Your task to perform on an android device: Search for the best selling vase on Crate & Barrel Image 0: 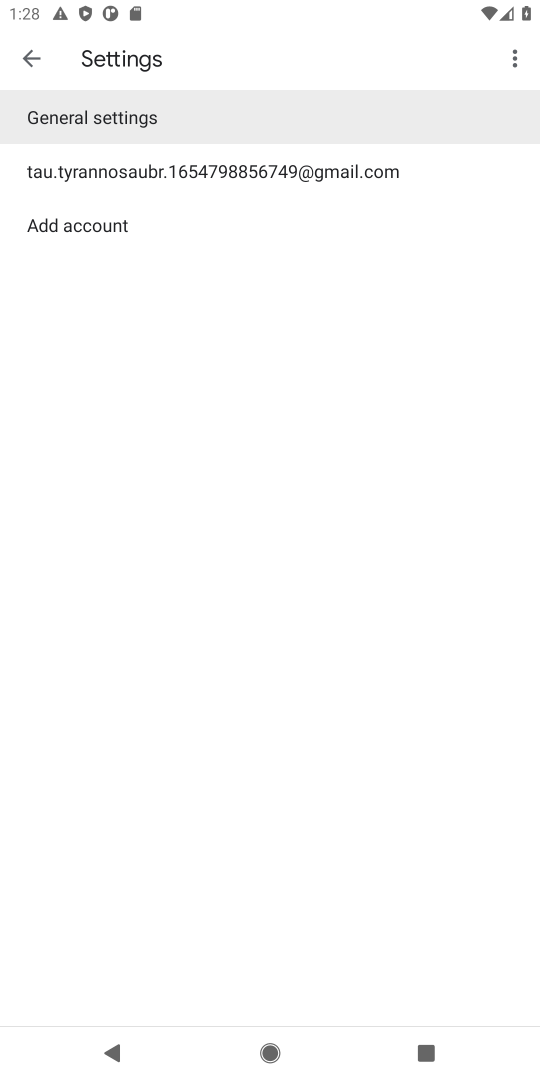
Step 0: press home button
Your task to perform on an android device: Search for the best selling vase on Crate & Barrel Image 1: 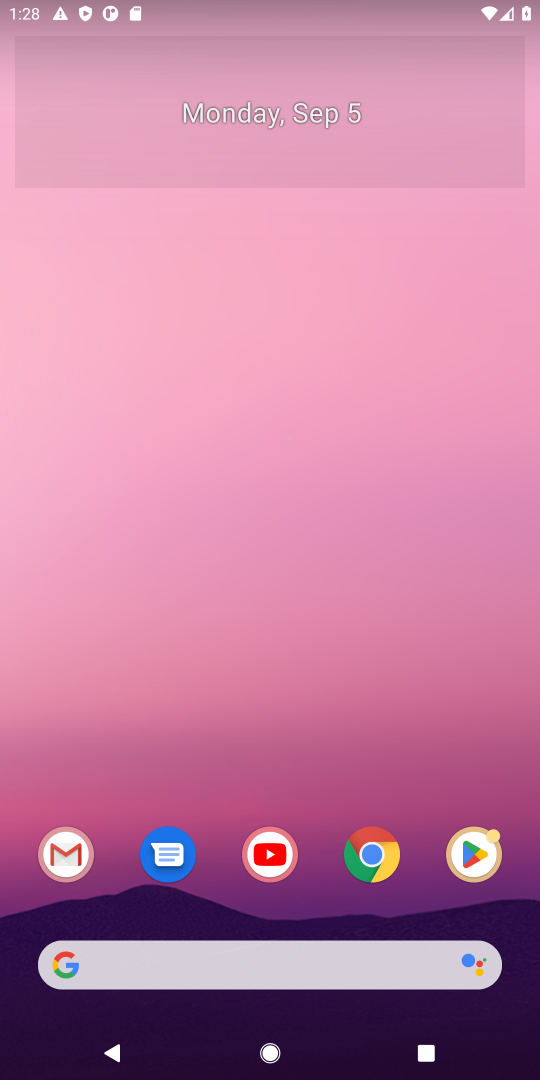
Step 1: click (334, 959)
Your task to perform on an android device: Search for the best selling vase on Crate & Barrel Image 2: 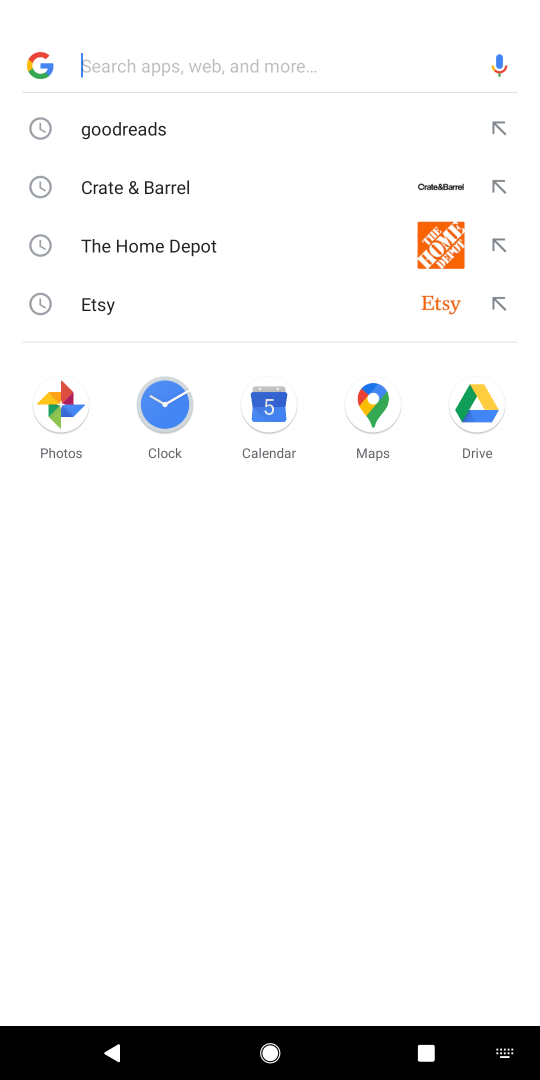
Step 2: type "crate barrel"
Your task to perform on an android device: Search for the best selling vase on Crate & Barrel Image 3: 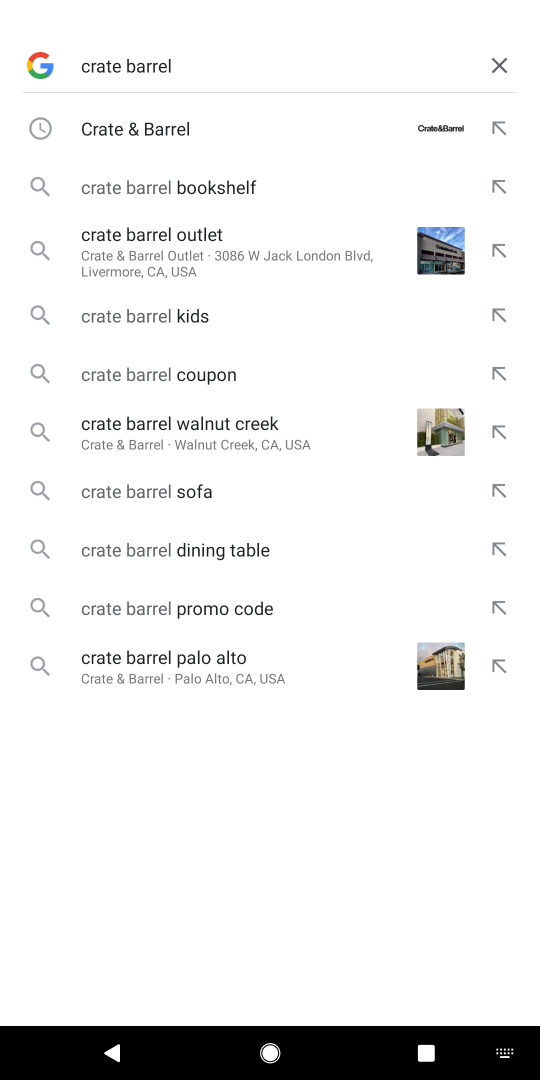
Step 3: press enter
Your task to perform on an android device: Search for the best selling vase on Crate & Barrel Image 4: 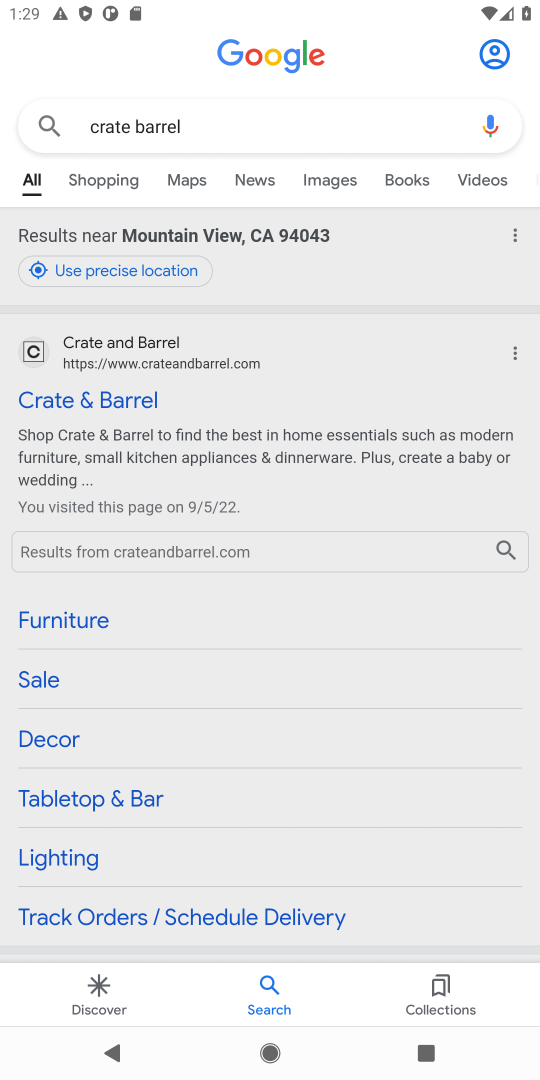
Step 4: click (82, 395)
Your task to perform on an android device: Search for the best selling vase on Crate & Barrel Image 5: 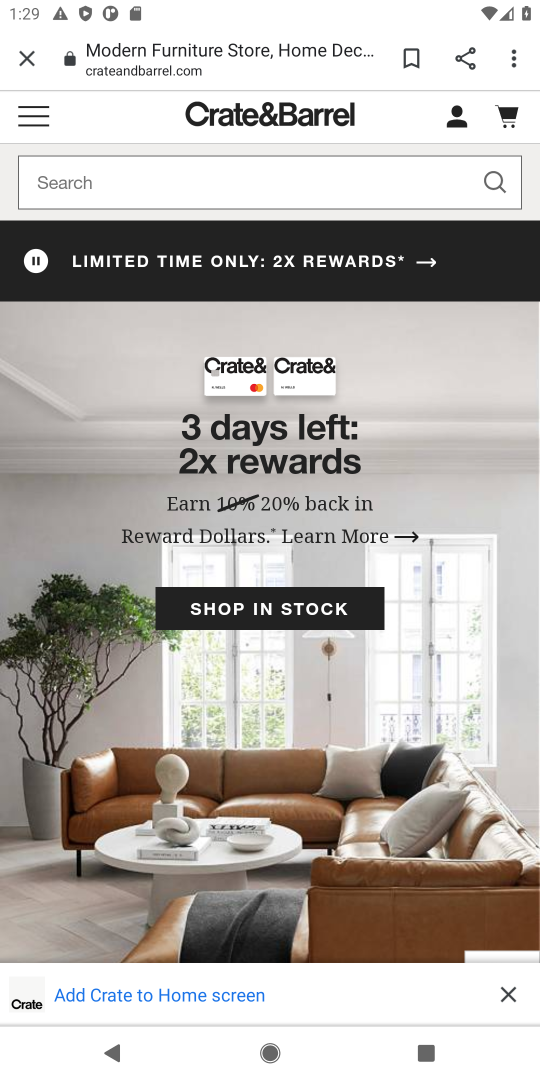
Step 5: click (190, 178)
Your task to perform on an android device: Search for the best selling vase on Crate & Barrel Image 6: 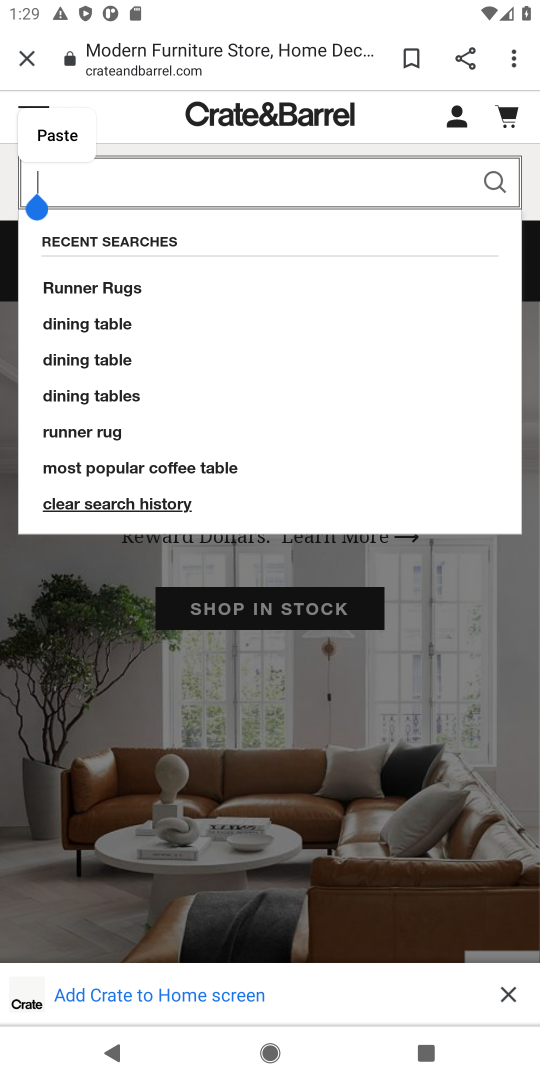
Step 6: press enter
Your task to perform on an android device: Search for the best selling vase on Crate & Barrel Image 7: 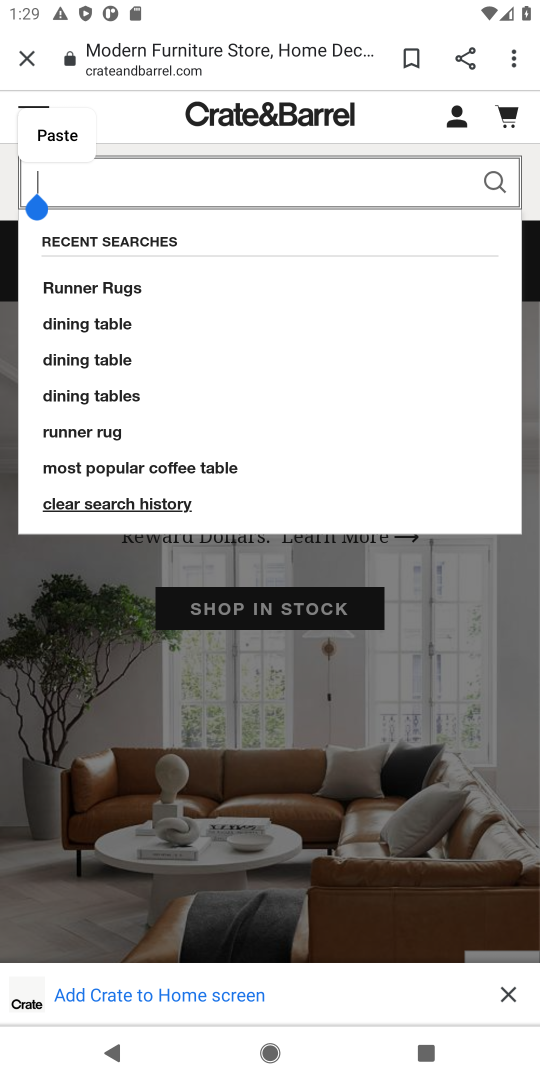
Step 7: type "best selling vase"
Your task to perform on an android device: Search for the best selling vase on Crate & Barrel Image 8: 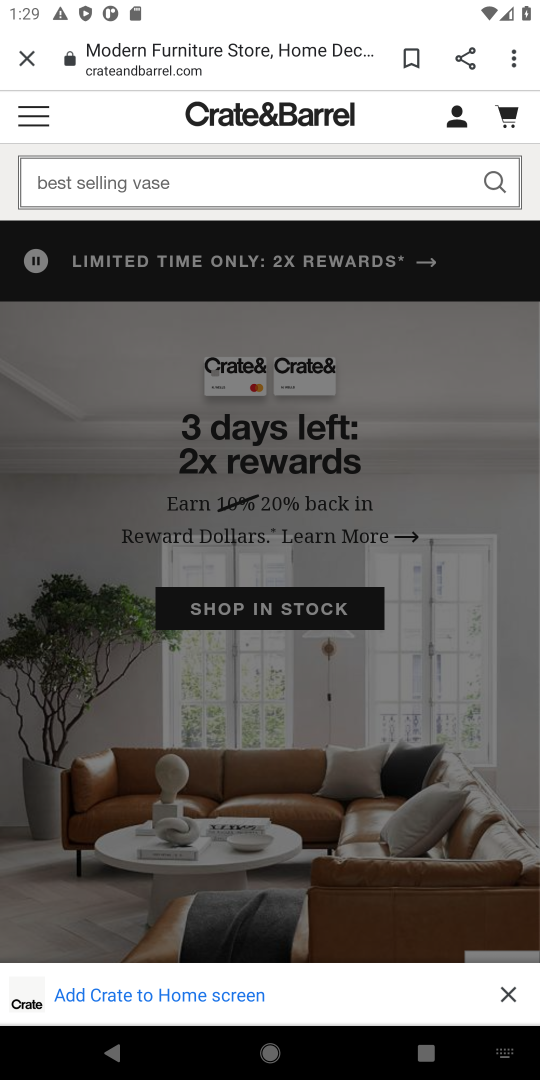
Step 8: click (498, 175)
Your task to perform on an android device: Search for the best selling vase on Crate & Barrel Image 9: 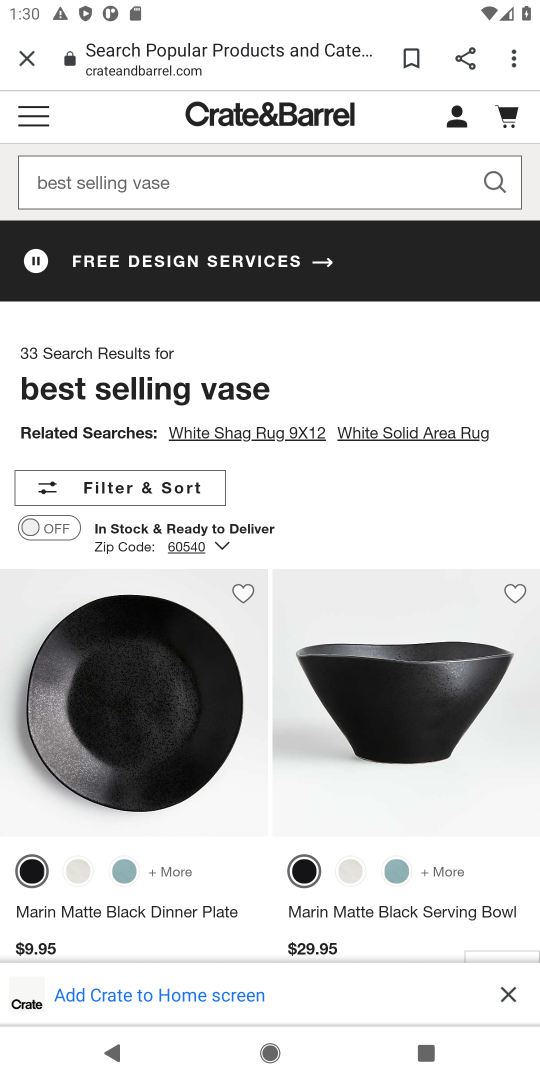
Step 9: task complete